Your task to perform on an android device: Go to Reddit.com Image 0: 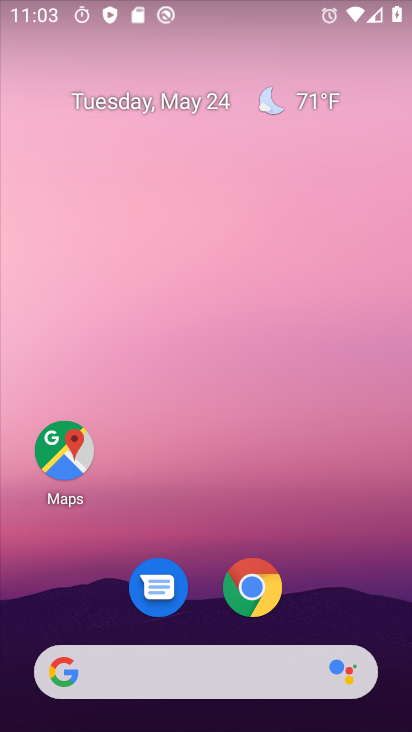
Step 0: drag from (221, 361) to (129, 3)
Your task to perform on an android device: Go to Reddit.com Image 1: 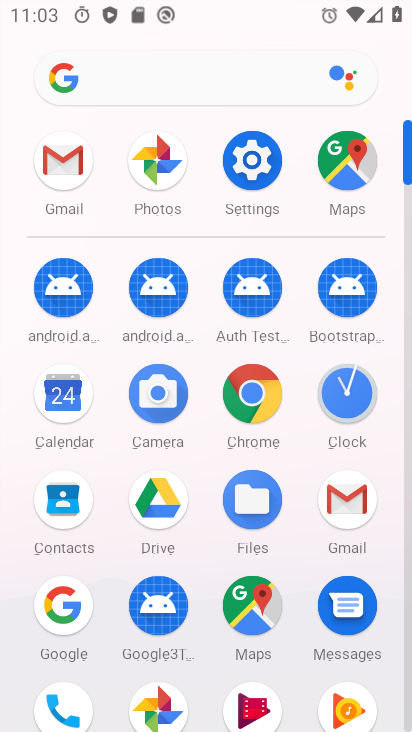
Step 1: click (262, 397)
Your task to perform on an android device: Go to Reddit.com Image 2: 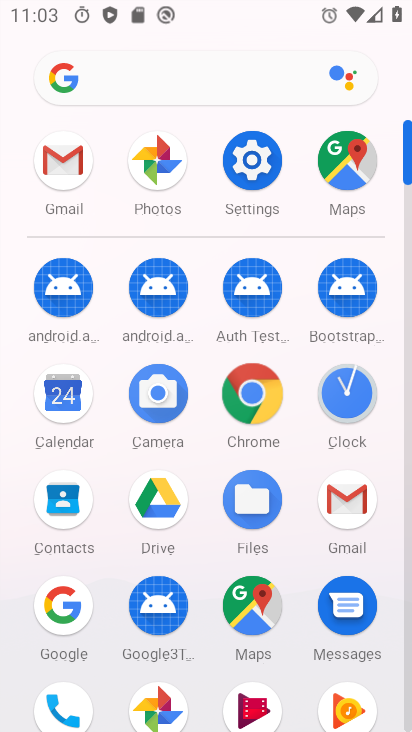
Step 2: click (262, 397)
Your task to perform on an android device: Go to Reddit.com Image 3: 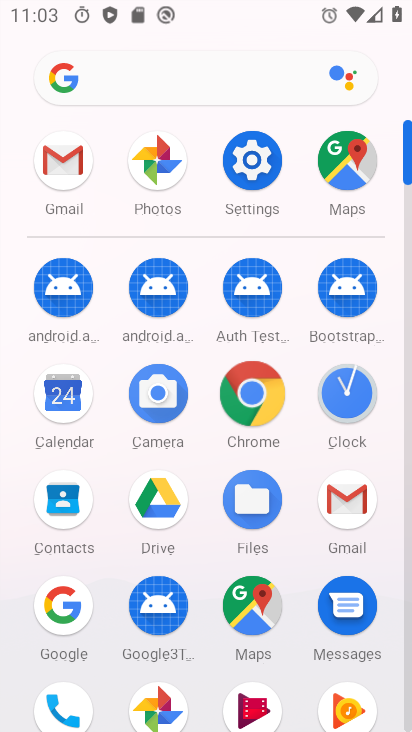
Step 3: click (262, 397)
Your task to perform on an android device: Go to Reddit.com Image 4: 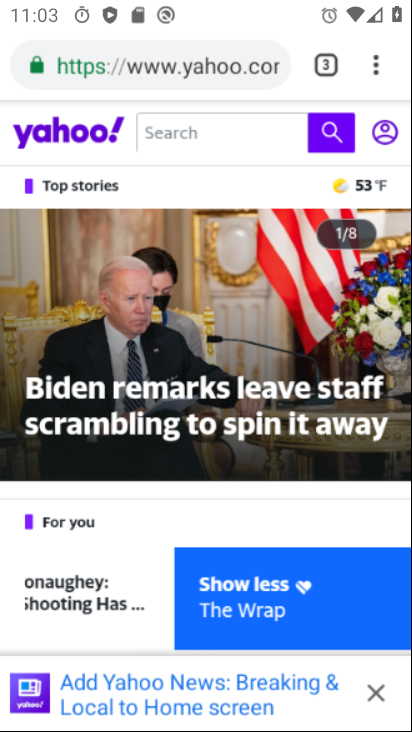
Step 4: click (263, 397)
Your task to perform on an android device: Go to Reddit.com Image 5: 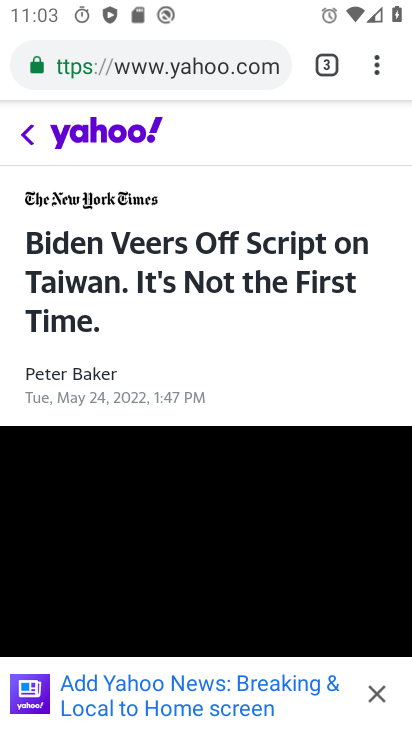
Step 5: drag from (376, 71) to (131, 135)
Your task to perform on an android device: Go to Reddit.com Image 6: 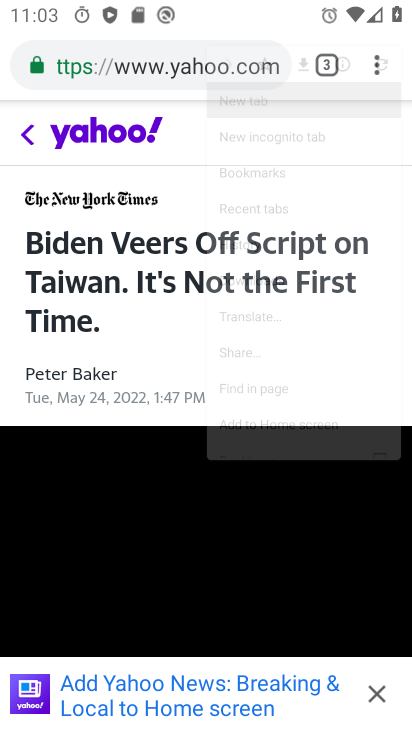
Step 6: click (131, 135)
Your task to perform on an android device: Go to Reddit.com Image 7: 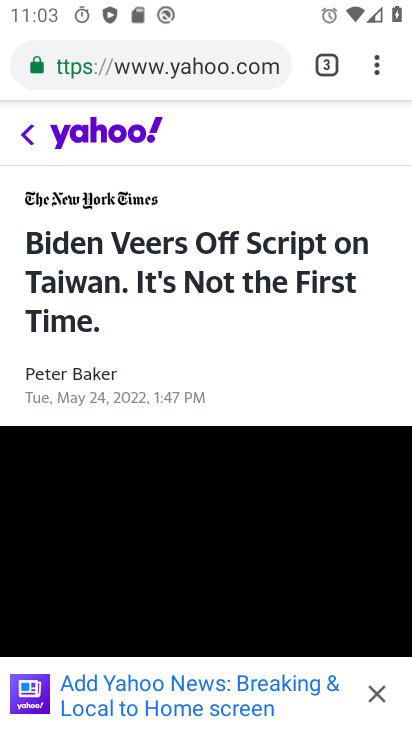
Step 7: click (131, 135)
Your task to perform on an android device: Go to Reddit.com Image 8: 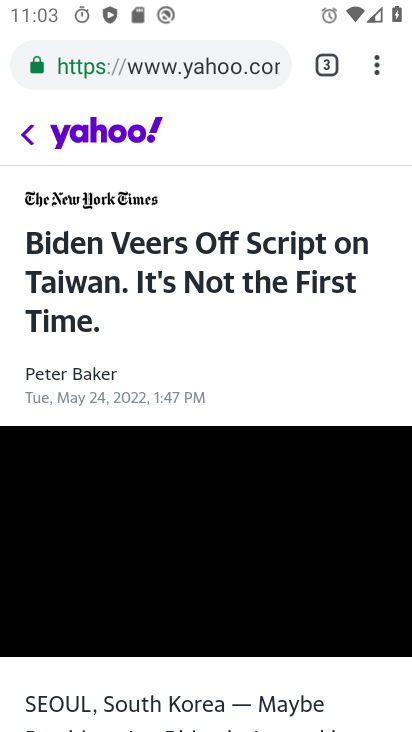
Step 8: click (378, 69)
Your task to perform on an android device: Go to Reddit.com Image 9: 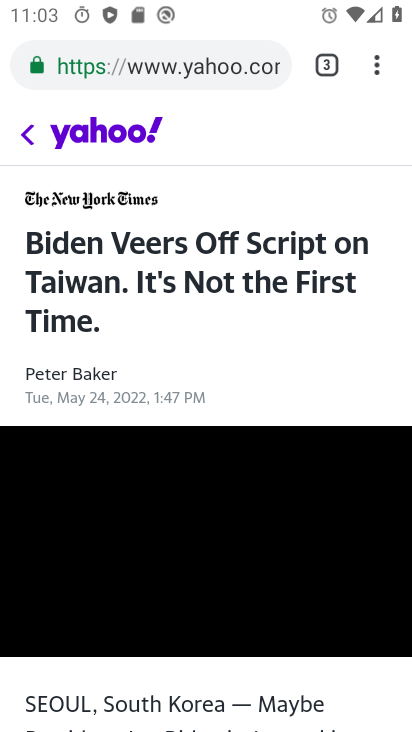
Step 9: click (377, 69)
Your task to perform on an android device: Go to Reddit.com Image 10: 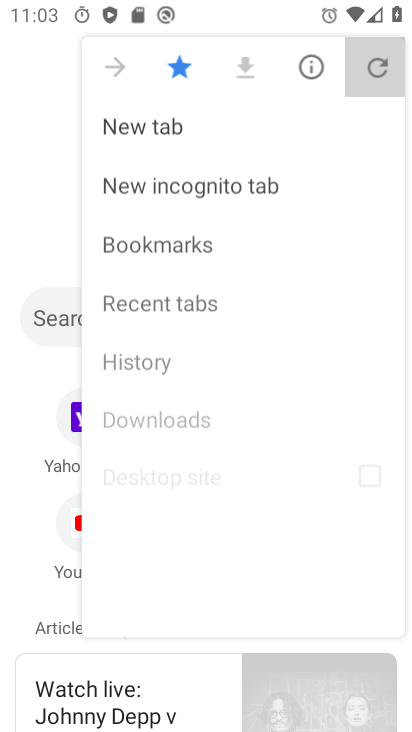
Step 10: click (377, 69)
Your task to perform on an android device: Go to Reddit.com Image 11: 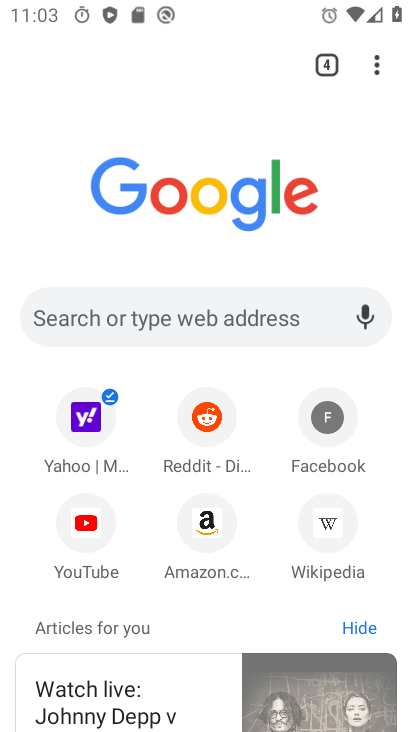
Step 11: drag from (377, 69) to (129, 247)
Your task to perform on an android device: Go to Reddit.com Image 12: 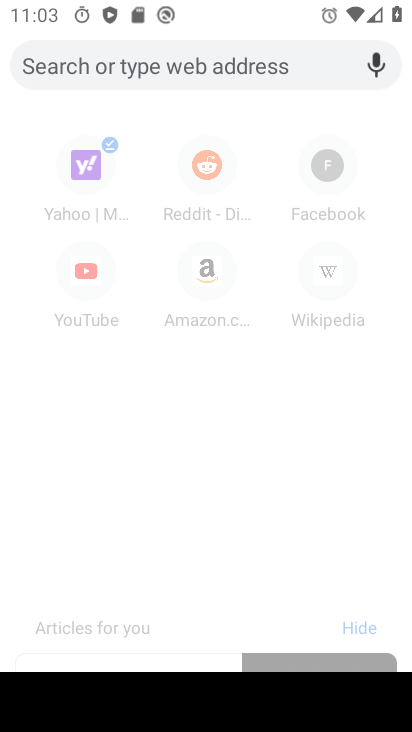
Step 12: click (36, 63)
Your task to perform on an android device: Go to Reddit.com Image 13: 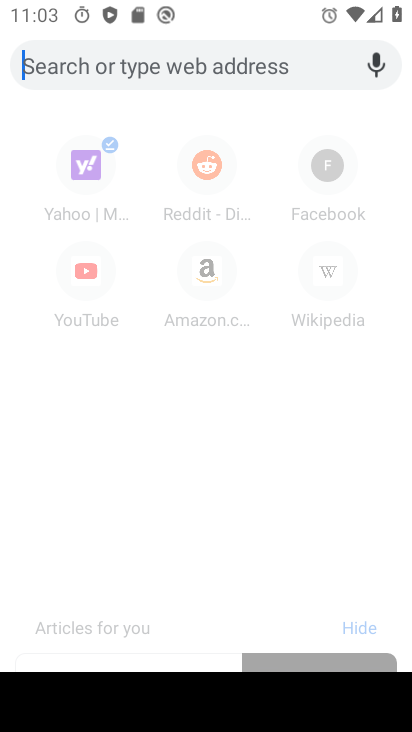
Step 13: type "reddit.com"
Your task to perform on an android device: Go to Reddit.com Image 14: 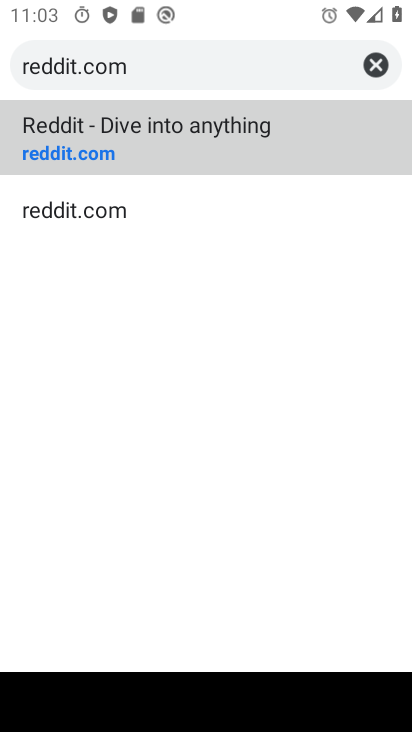
Step 14: click (65, 147)
Your task to perform on an android device: Go to Reddit.com Image 15: 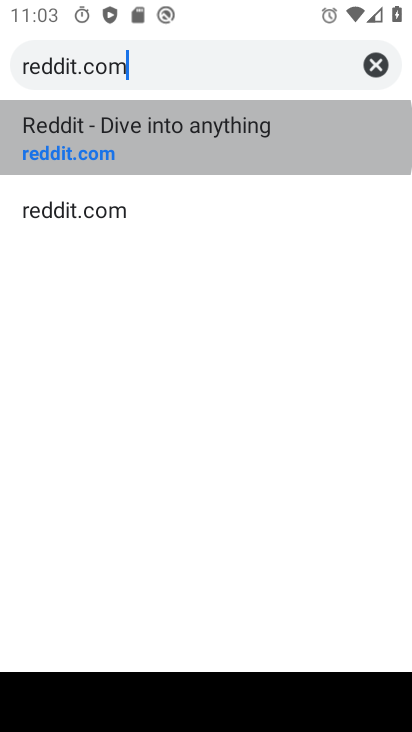
Step 15: click (65, 147)
Your task to perform on an android device: Go to Reddit.com Image 16: 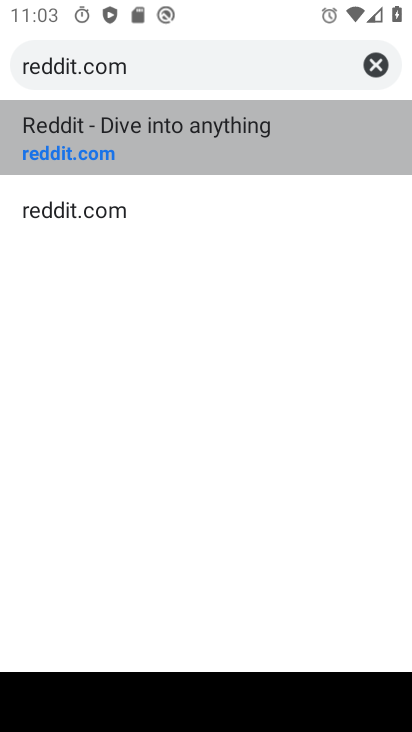
Step 16: click (65, 147)
Your task to perform on an android device: Go to Reddit.com Image 17: 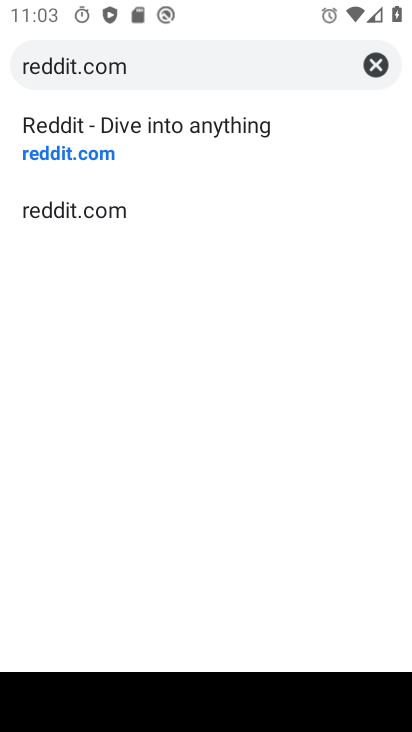
Step 17: click (65, 147)
Your task to perform on an android device: Go to Reddit.com Image 18: 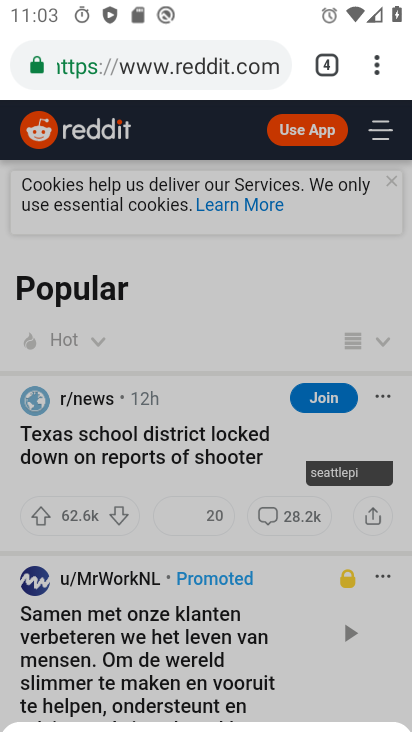
Step 18: task complete